Your task to perform on an android device: Go to privacy settings Image 0: 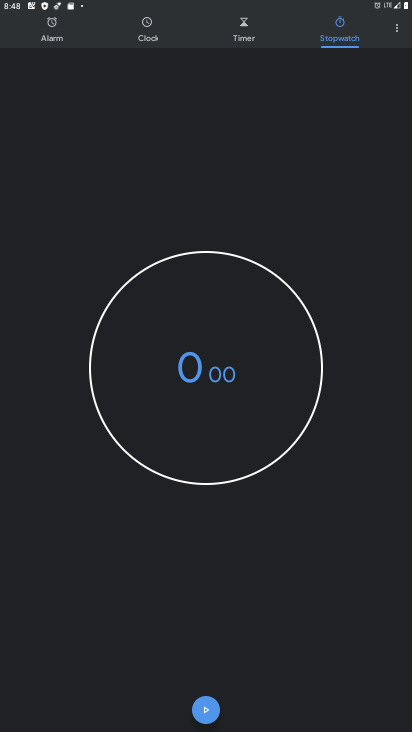
Step 0: press home button
Your task to perform on an android device: Go to privacy settings Image 1: 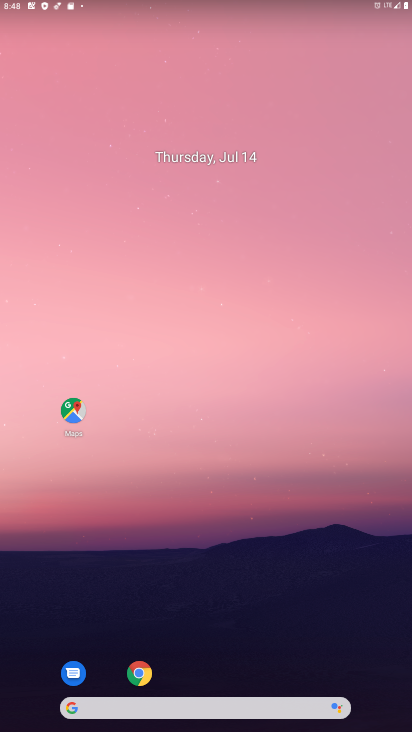
Step 1: drag from (212, 702) to (411, 134)
Your task to perform on an android device: Go to privacy settings Image 2: 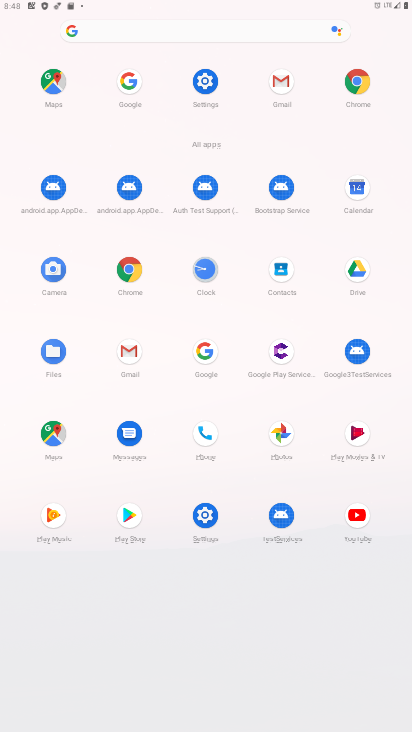
Step 2: click (206, 83)
Your task to perform on an android device: Go to privacy settings Image 3: 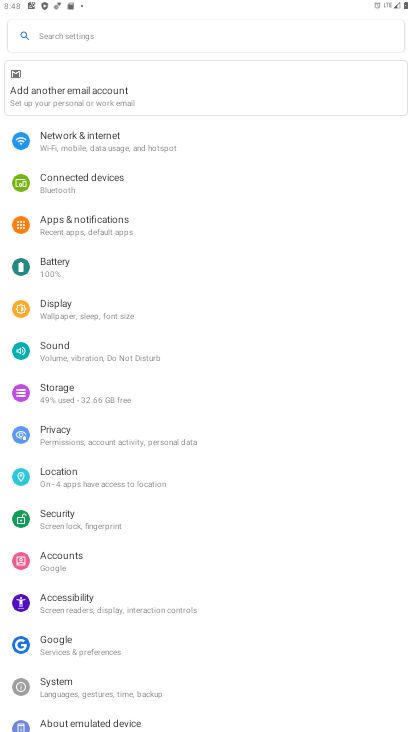
Step 3: click (52, 440)
Your task to perform on an android device: Go to privacy settings Image 4: 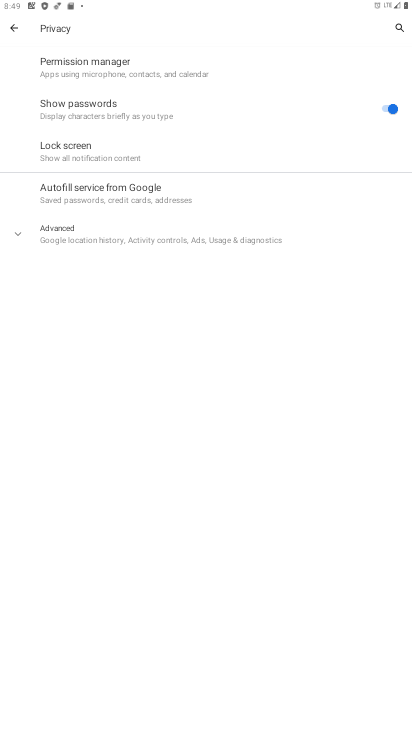
Step 4: task complete